Your task to perform on an android device: Open privacy settings Image 0: 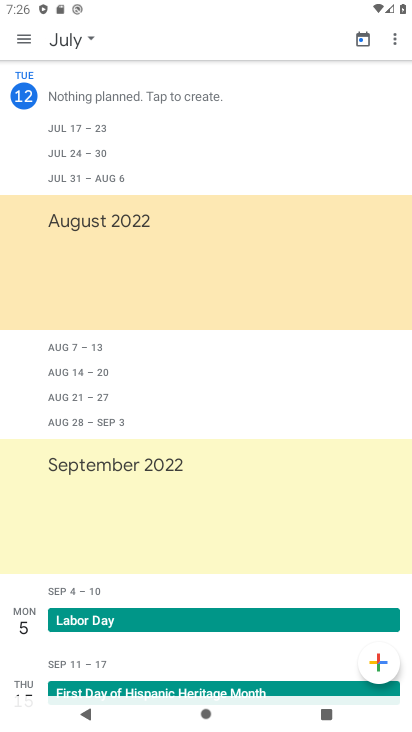
Step 0: press home button
Your task to perform on an android device: Open privacy settings Image 1: 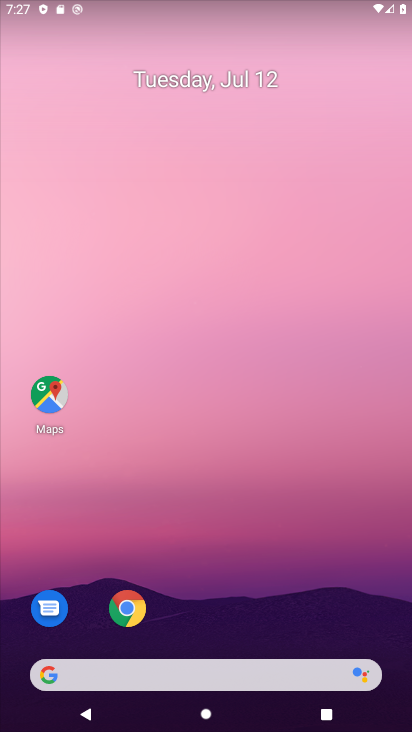
Step 1: drag from (224, 667) to (353, 198)
Your task to perform on an android device: Open privacy settings Image 2: 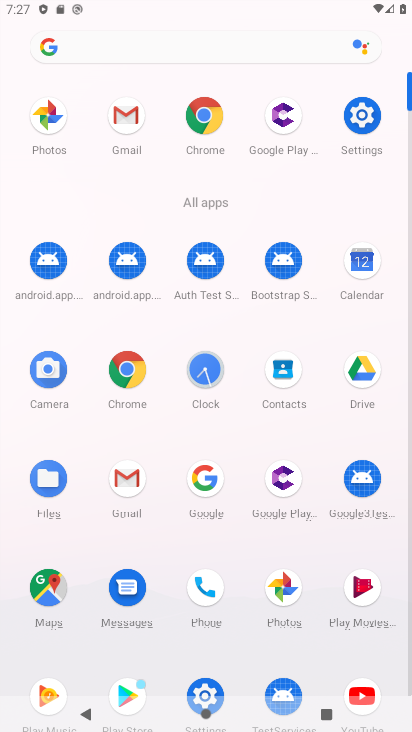
Step 2: click (368, 127)
Your task to perform on an android device: Open privacy settings Image 3: 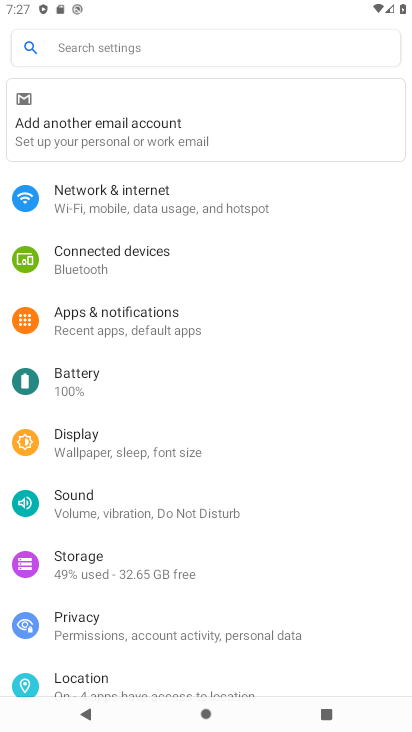
Step 3: click (88, 623)
Your task to perform on an android device: Open privacy settings Image 4: 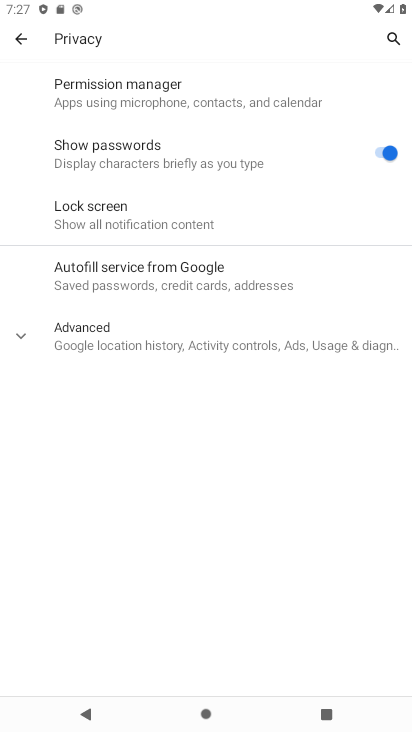
Step 4: task complete